Your task to perform on an android device: all mails in gmail Image 0: 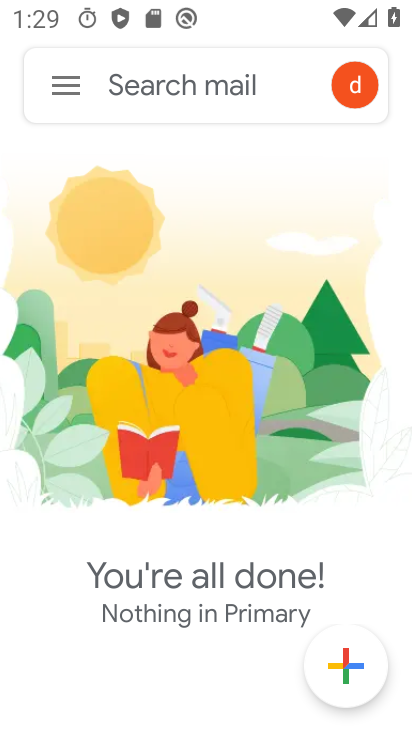
Step 0: click (61, 77)
Your task to perform on an android device: all mails in gmail Image 1: 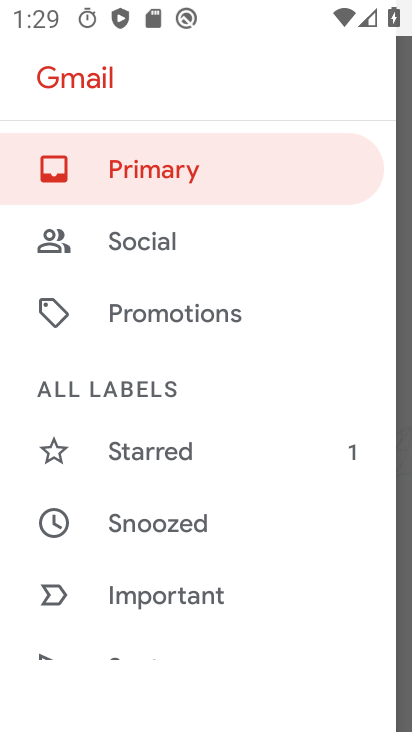
Step 1: drag from (164, 633) to (160, 267)
Your task to perform on an android device: all mails in gmail Image 2: 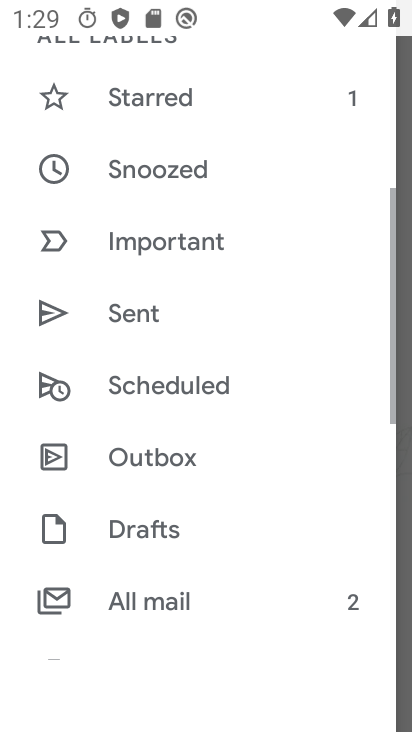
Step 2: click (171, 598)
Your task to perform on an android device: all mails in gmail Image 3: 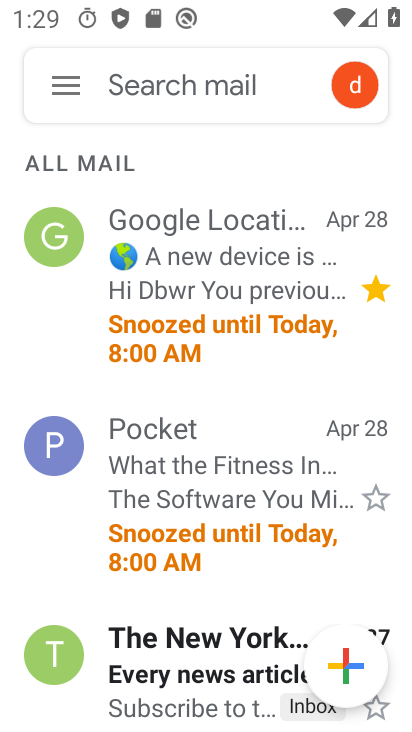
Step 3: task complete